Your task to perform on an android device: create a new album in the google photos Image 0: 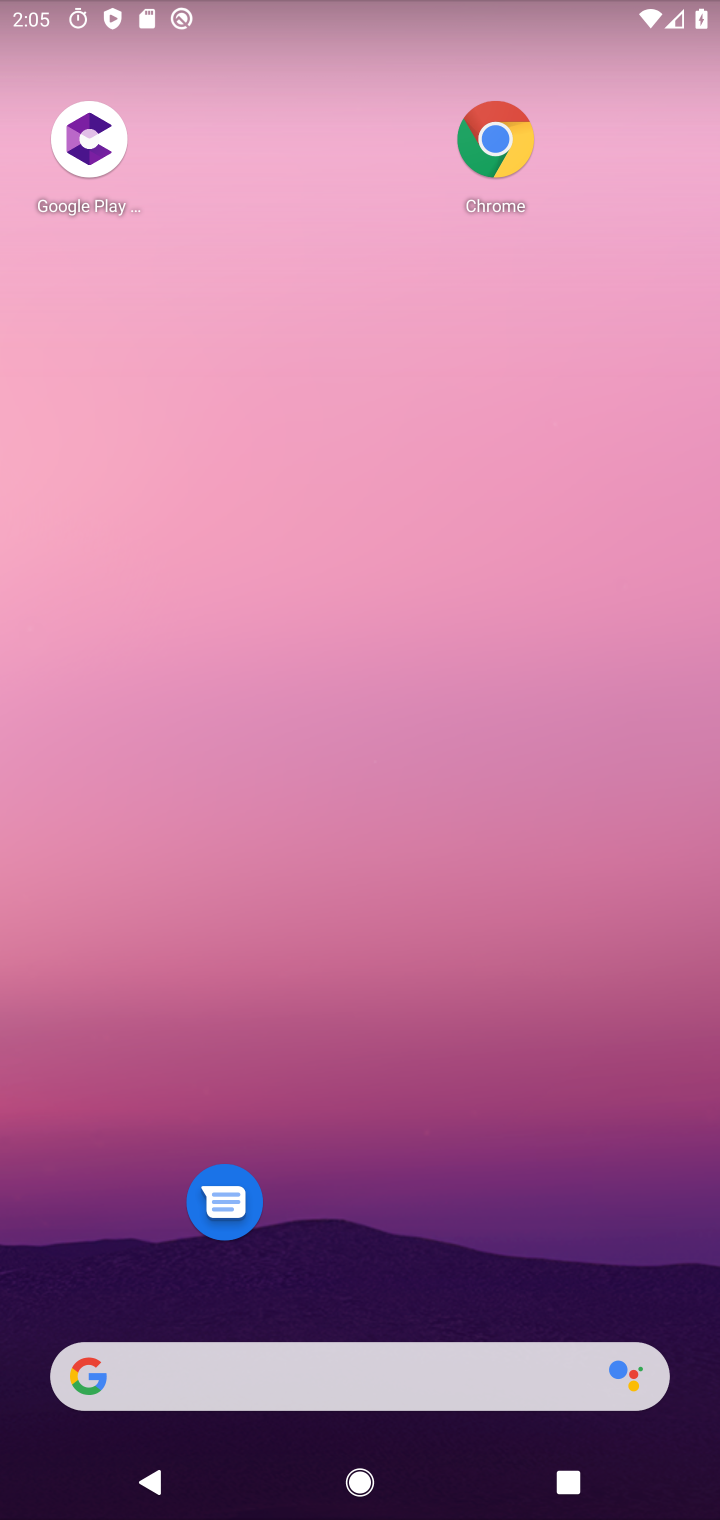
Step 0: drag from (437, 797) to (420, 120)
Your task to perform on an android device: create a new album in the google photos Image 1: 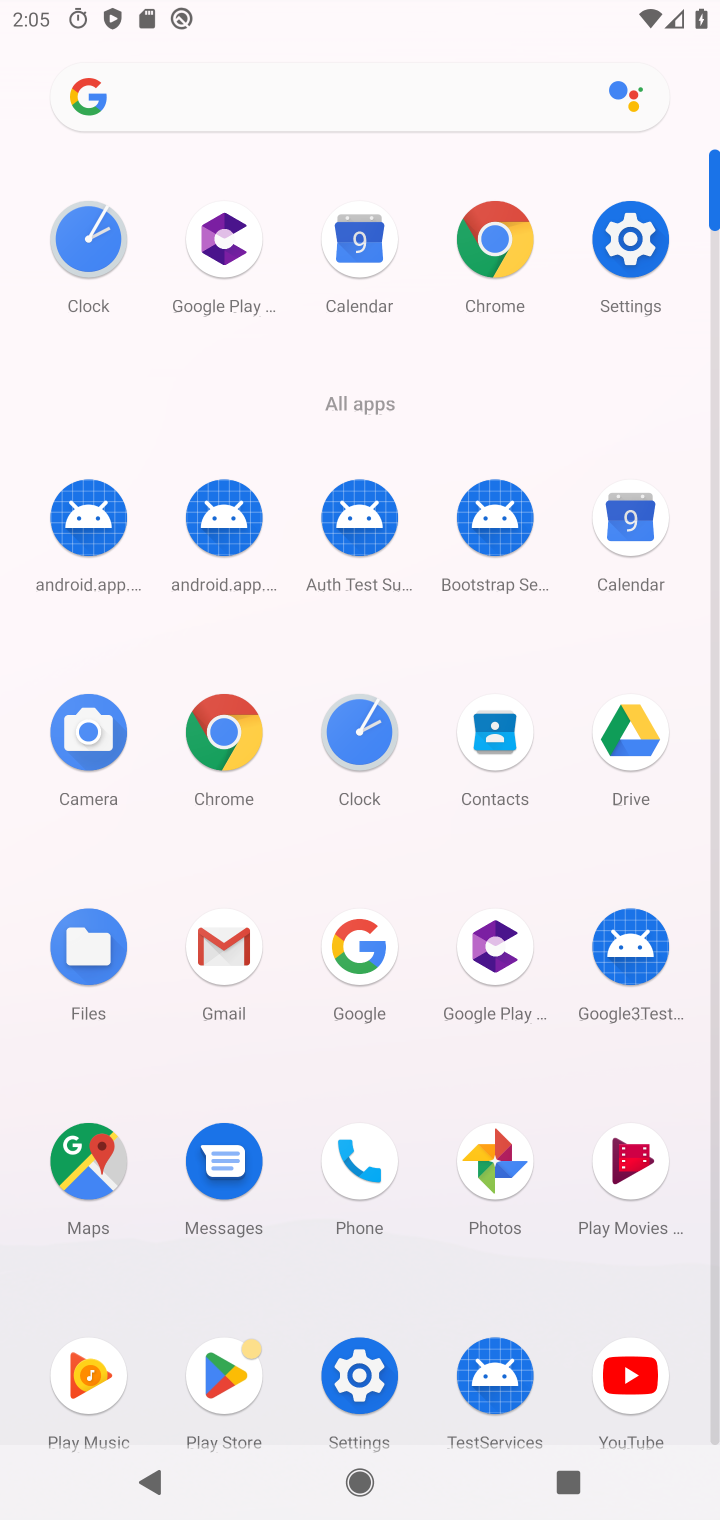
Step 1: click (480, 1150)
Your task to perform on an android device: create a new album in the google photos Image 2: 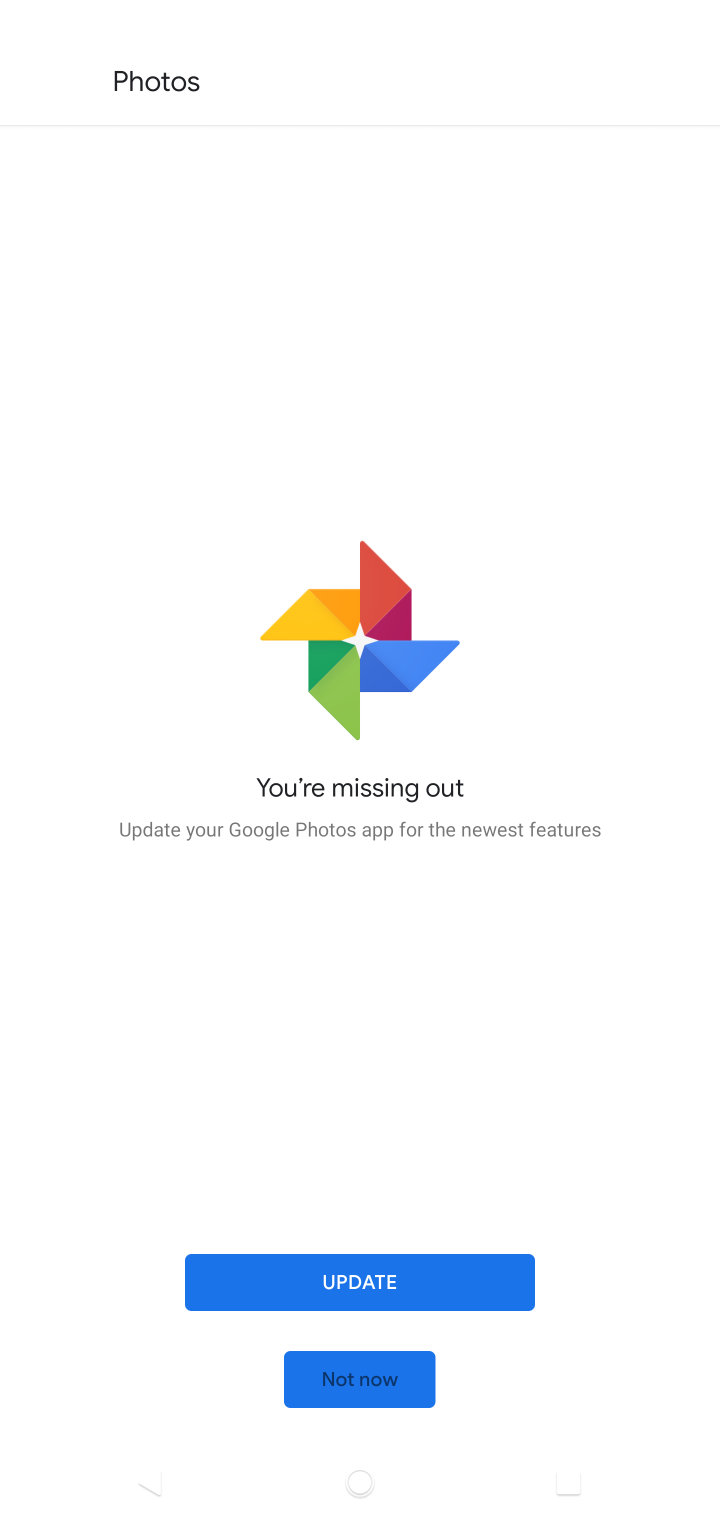
Step 2: click (593, 804)
Your task to perform on an android device: create a new album in the google photos Image 3: 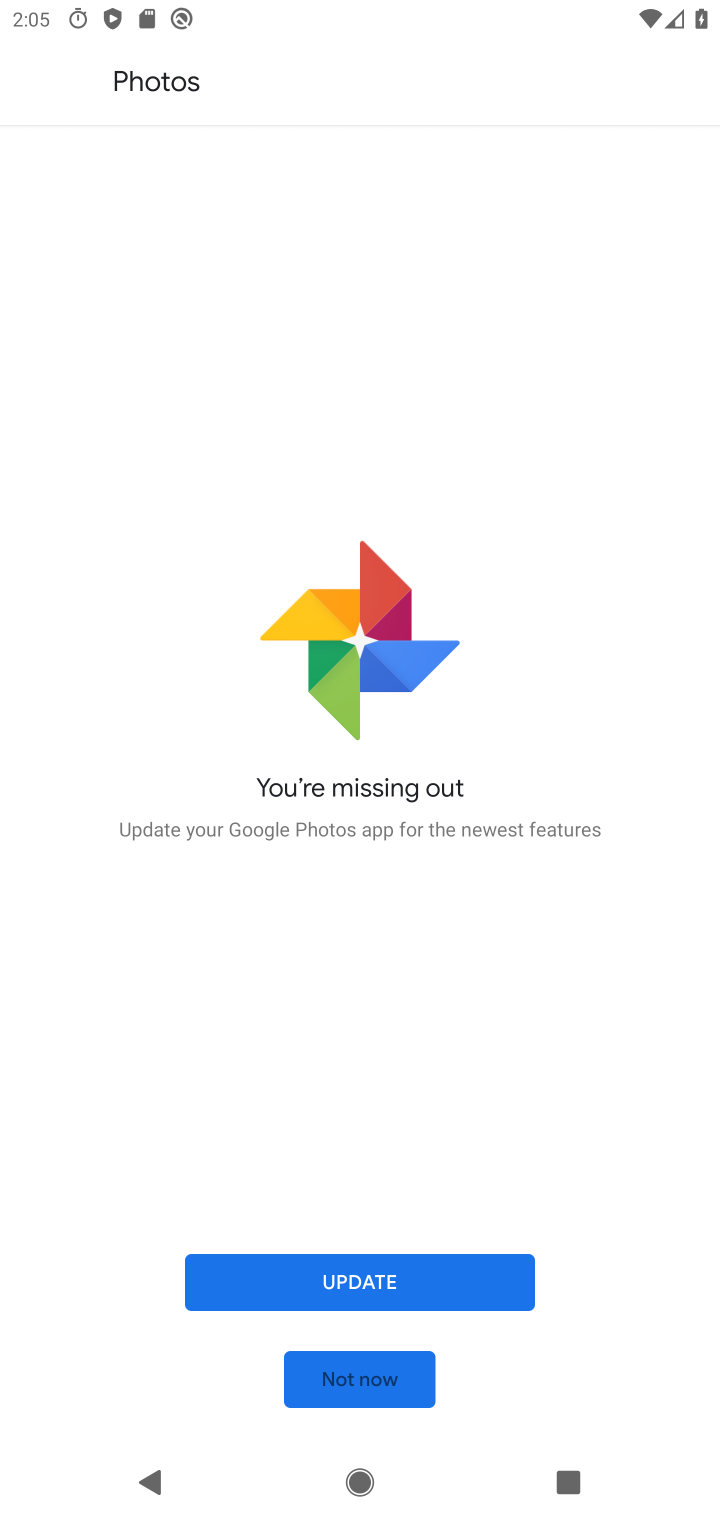
Step 3: click (276, 1284)
Your task to perform on an android device: create a new album in the google photos Image 4: 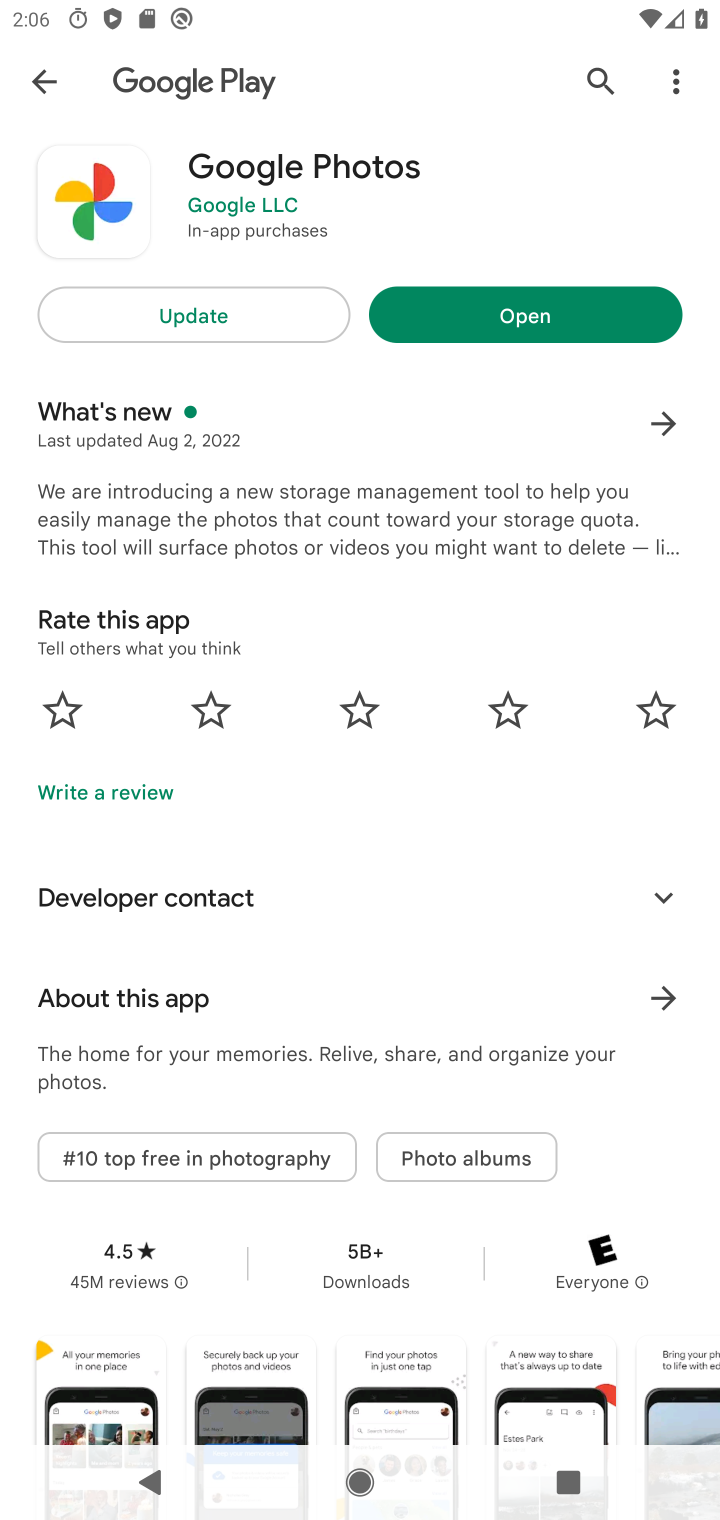
Step 4: click (210, 333)
Your task to perform on an android device: create a new album in the google photos Image 5: 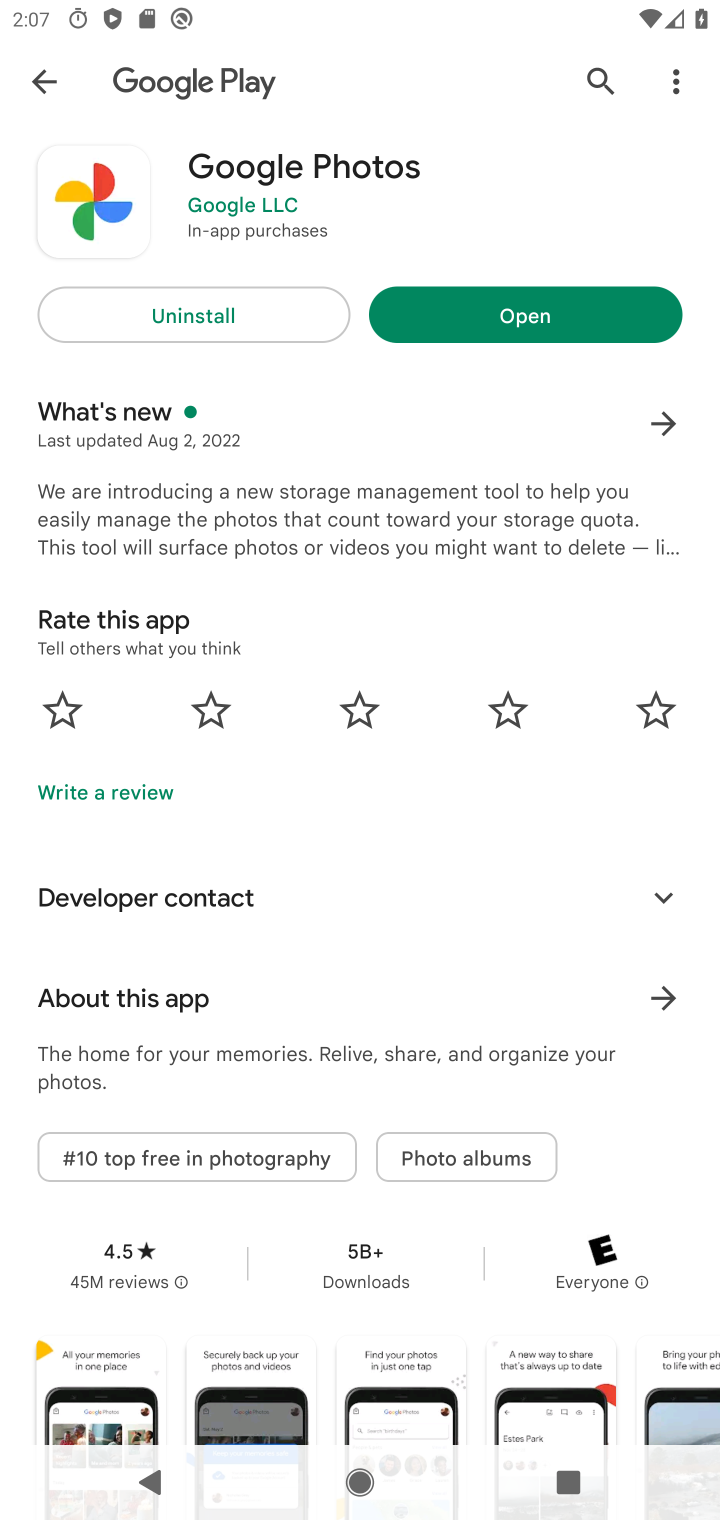
Step 5: click (555, 298)
Your task to perform on an android device: create a new album in the google photos Image 6: 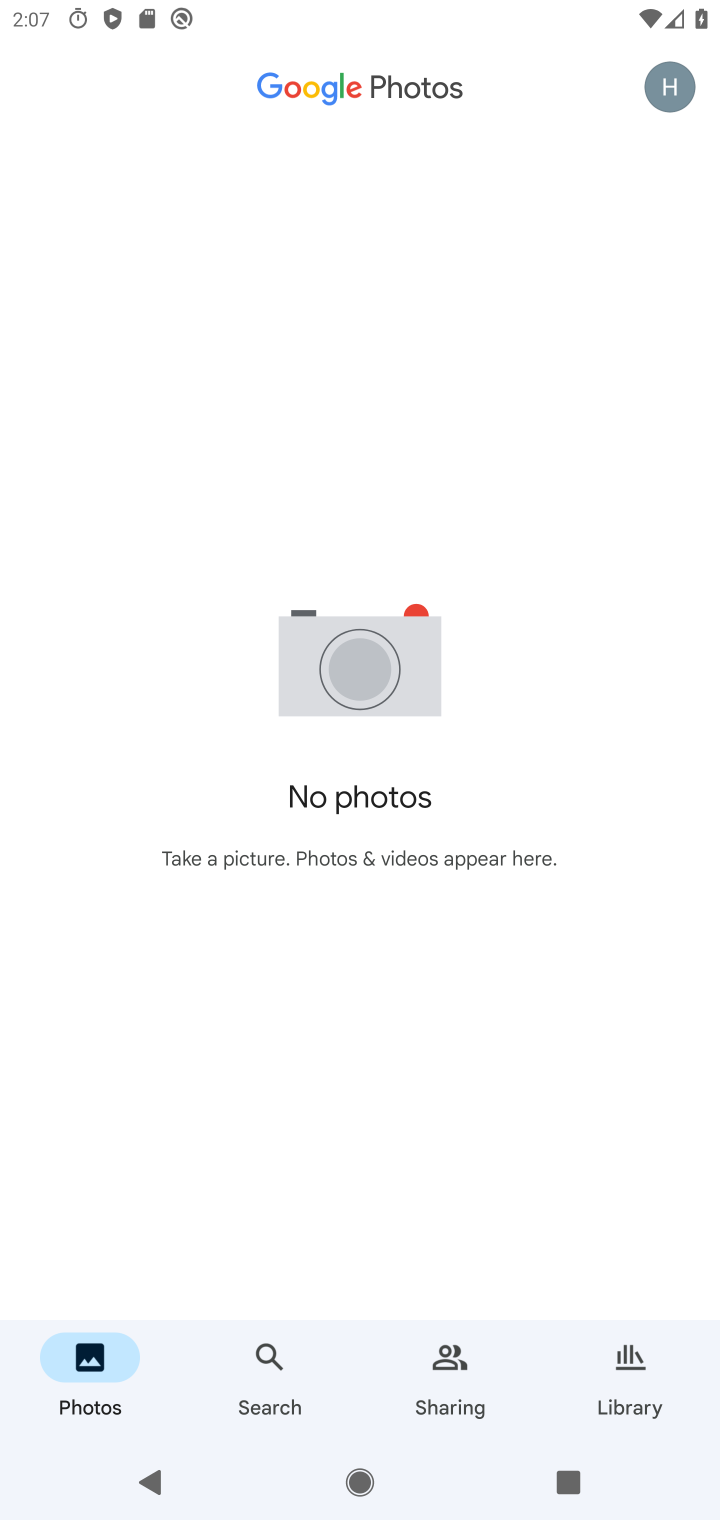
Step 6: click (626, 1342)
Your task to perform on an android device: create a new album in the google photos Image 7: 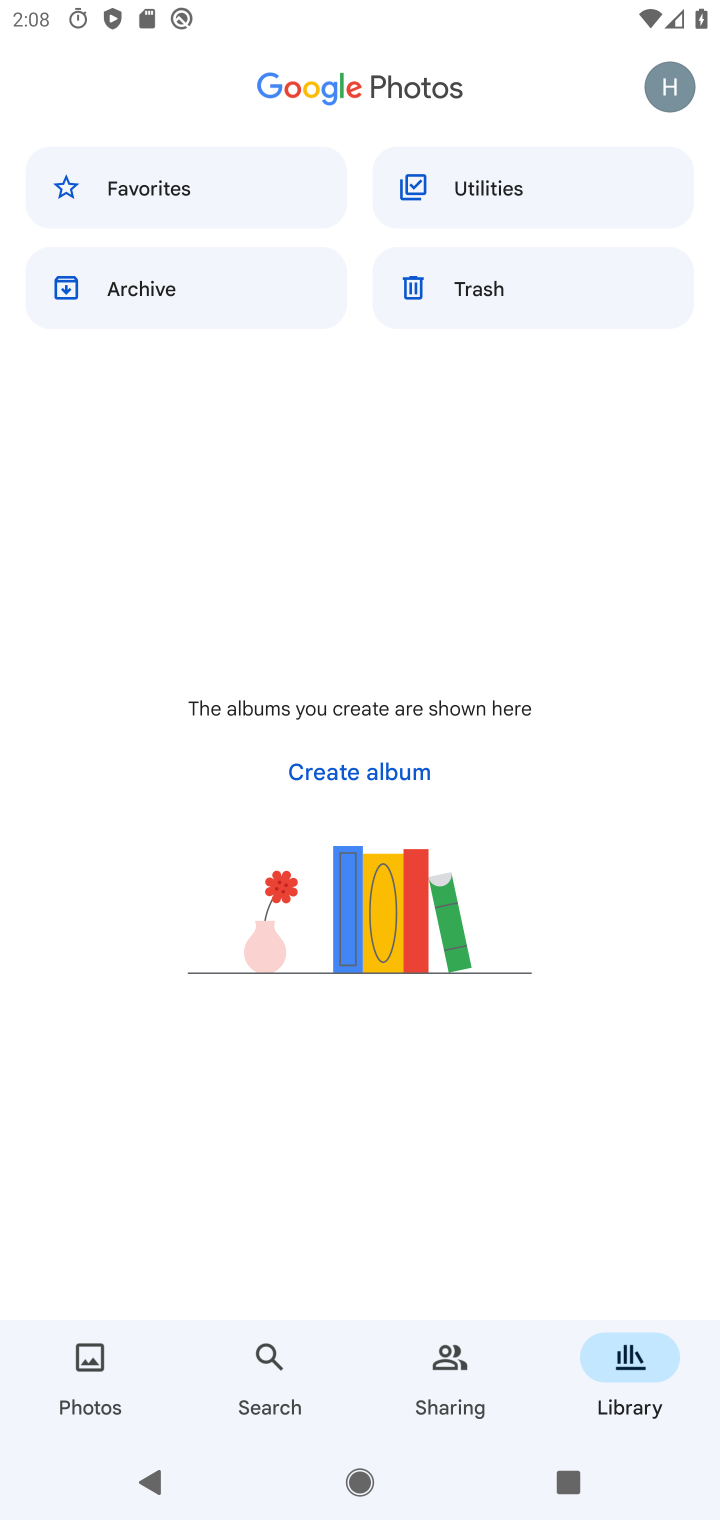
Step 7: task complete